Your task to perform on an android device: Show me popular games on the Play Store Image 0: 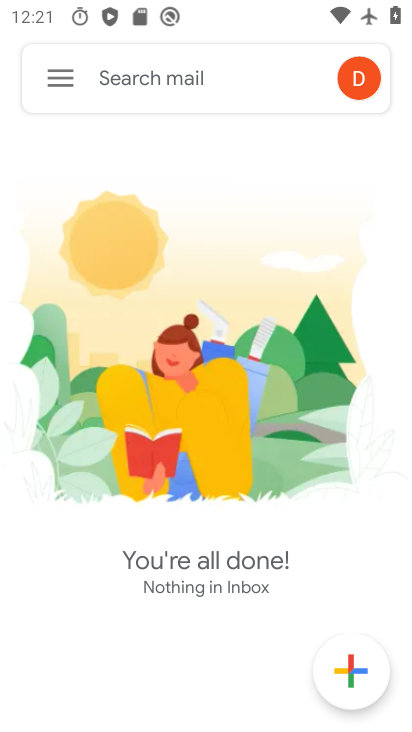
Step 0: press home button
Your task to perform on an android device: Show me popular games on the Play Store Image 1: 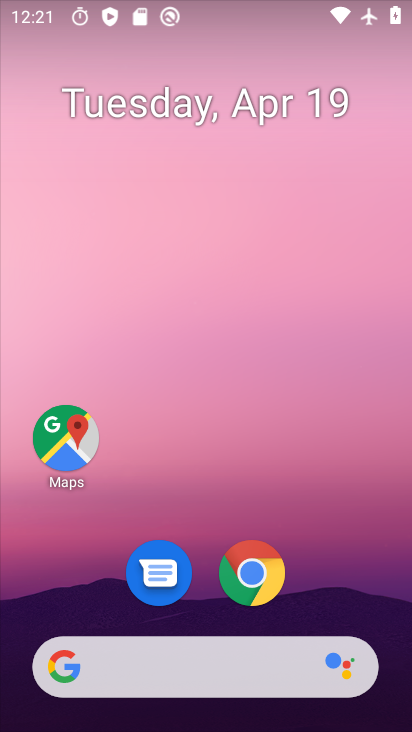
Step 1: drag from (342, 593) to (326, 204)
Your task to perform on an android device: Show me popular games on the Play Store Image 2: 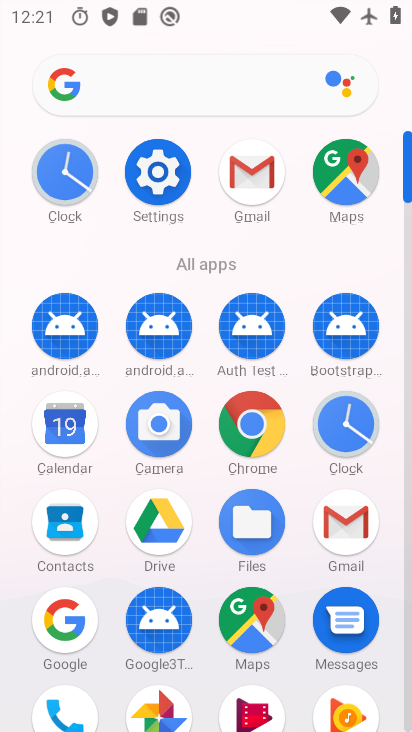
Step 2: drag from (209, 663) to (227, 315)
Your task to perform on an android device: Show me popular games on the Play Store Image 3: 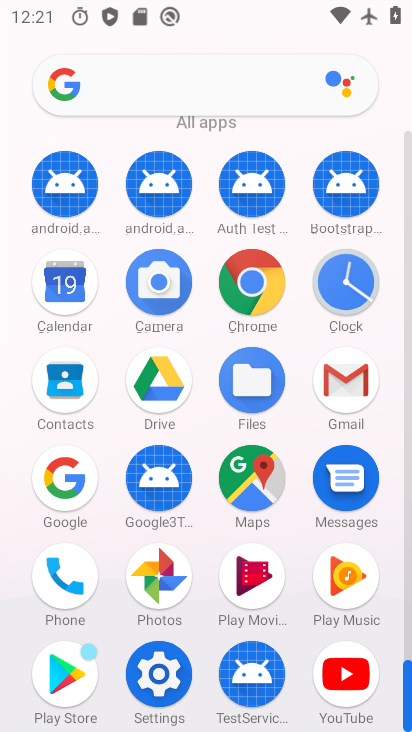
Step 3: click (61, 677)
Your task to perform on an android device: Show me popular games on the Play Store Image 4: 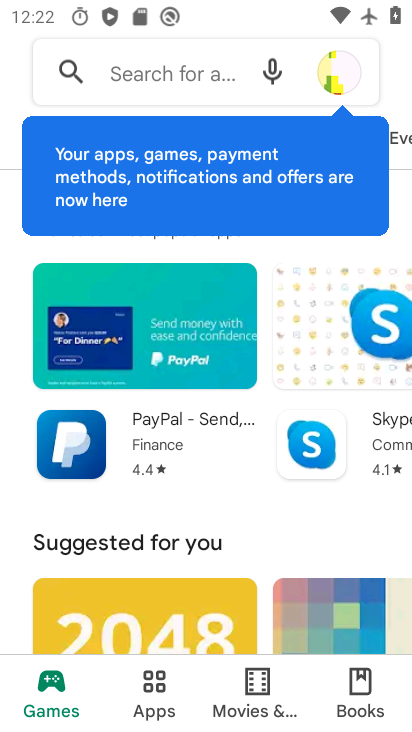
Step 4: press home button
Your task to perform on an android device: Show me popular games on the Play Store Image 5: 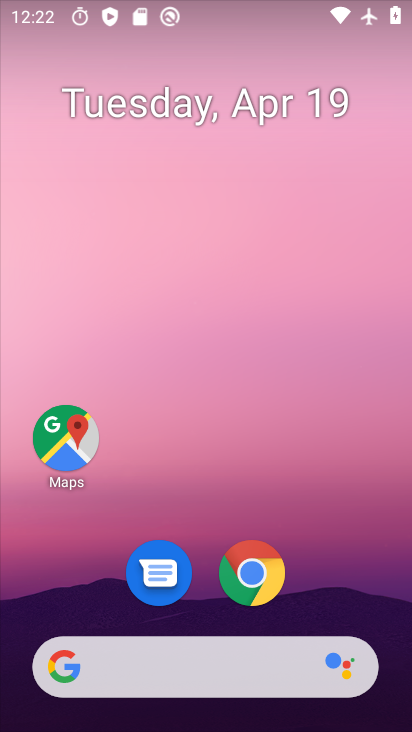
Step 5: drag from (294, 559) to (298, 166)
Your task to perform on an android device: Show me popular games on the Play Store Image 6: 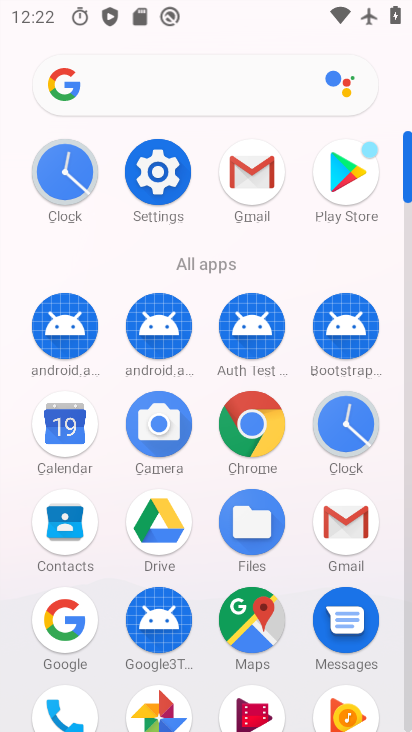
Step 6: drag from (297, 606) to (301, 166)
Your task to perform on an android device: Show me popular games on the Play Store Image 7: 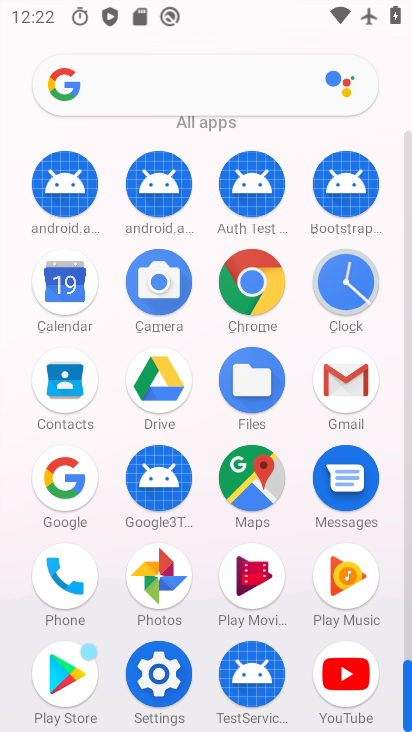
Step 7: click (74, 650)
Your task to perform on an android device: Show me popular games on the Play Store Image 8: 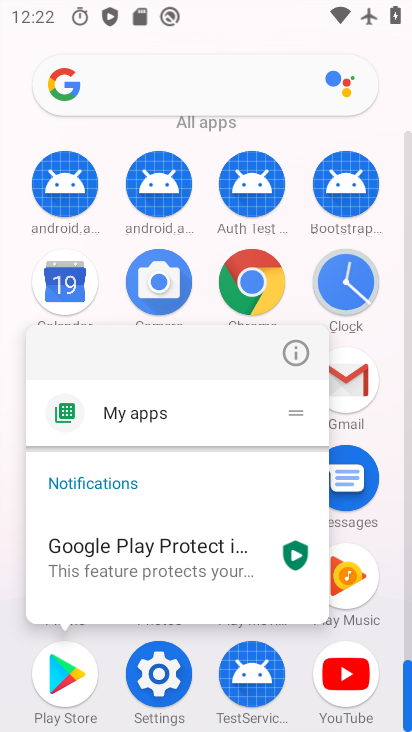
Step 8: click (77, 689)
Your task to perform on an android device: Show me popular games on the Play Store Image 9: 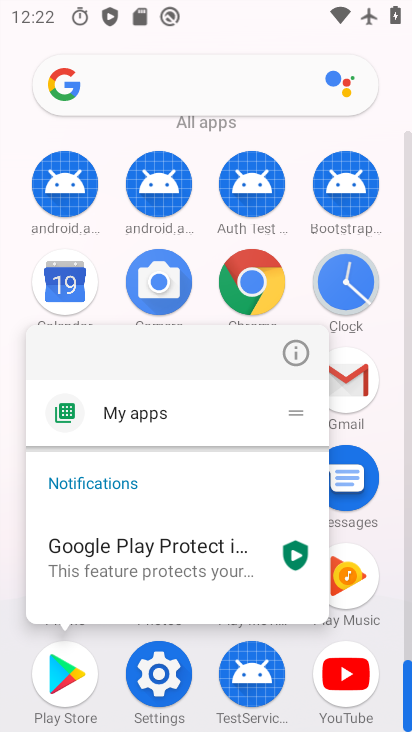
Step 9: click (68, 685)
Your task to perform on an android device: Show me popular games on the Play Store Image 10: 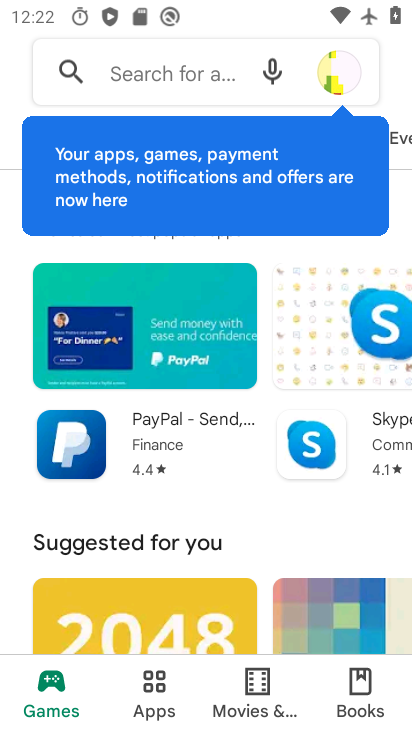
Step 10: drag from (197, 604) to (182, 382)
Your task to perform on an android device: Show me popular games on the Play Store Image 11: 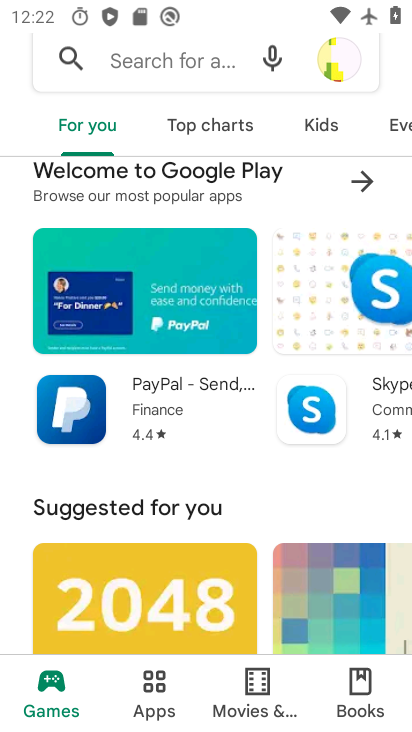
Step 11: drag from (191, 617) to (177, 295)
Your task to perform on an android device: Show me popular games on the Play Store Image 12: 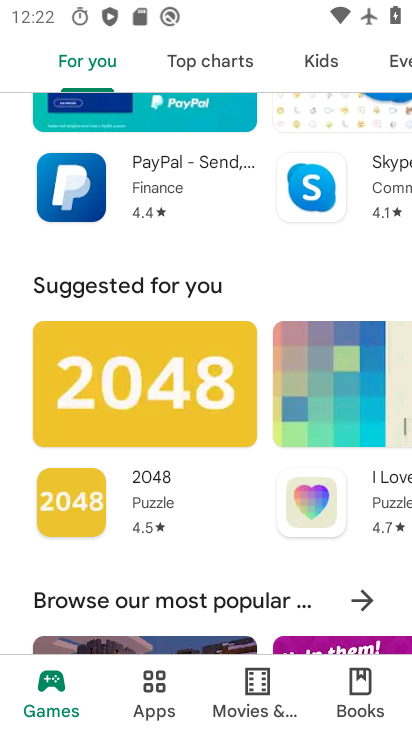
Step 12: drag from (209, 638) to (207, 329)
Your task to perform on an android device: Show me popular games on the Play Store Image 13: 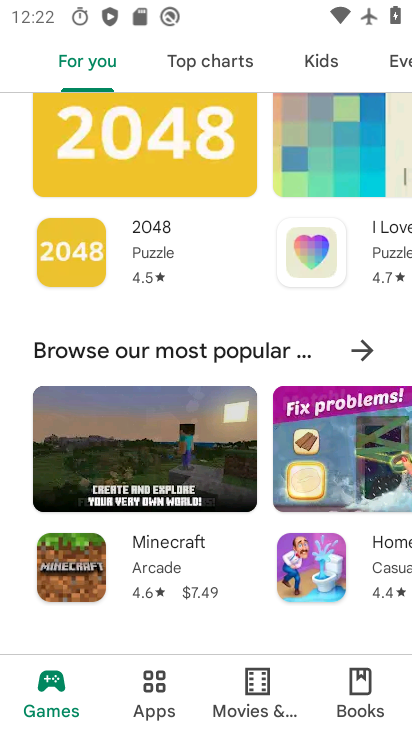
Step 13: click (347, 354)
Your task to perform on an android device: Show me popular games on the Play Store Image 14: 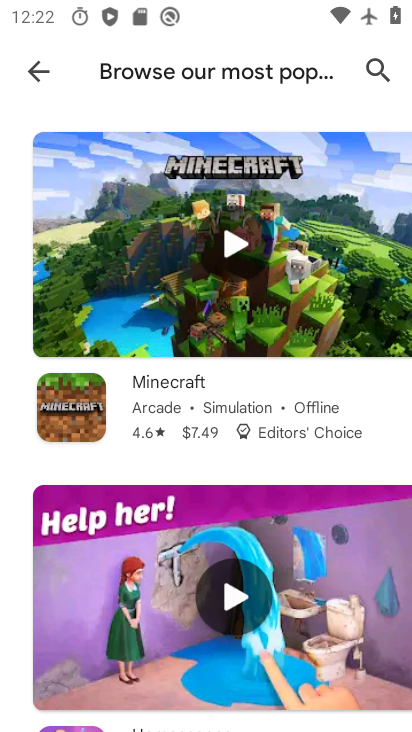
Step 14: task complete